Your task to perform on an android device: open chrome and create a bookmark for the current page Image 0: 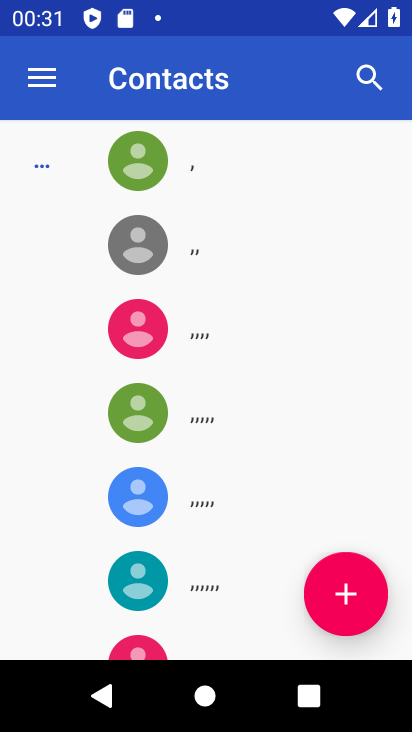
Step 0: press home button
Your task to perform on an android device: open chrome and create a bookmark for the current page Image 1: 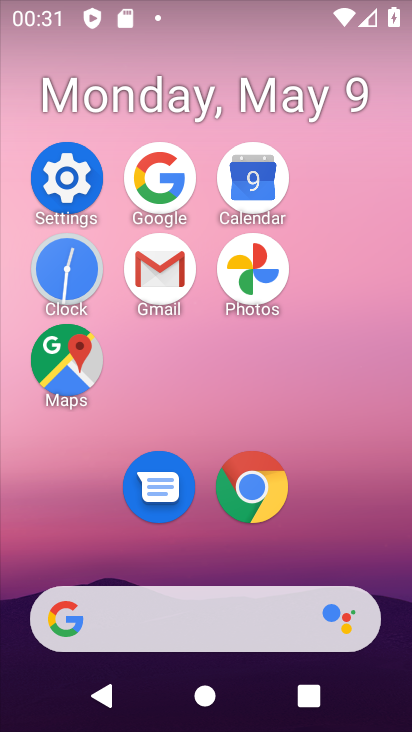
Step 1: click (249, 486)
Your task to perform on an android device: open chrome and create a bookmark for the current page Image 2: 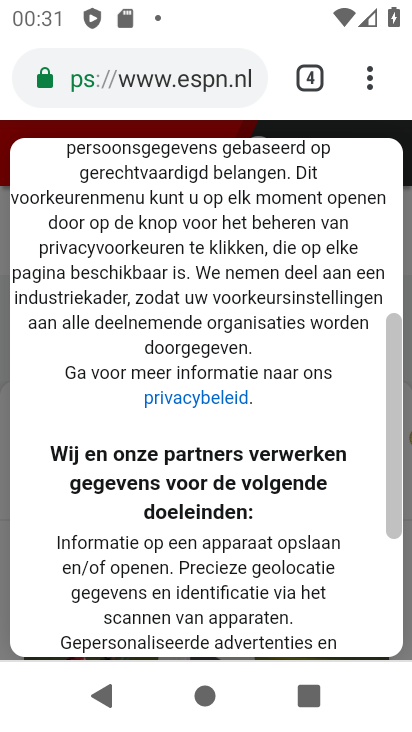
Step 2: click (310, 81)
Your task to perform on an android device: open chrome and create a bookmark for the current page Image 3: 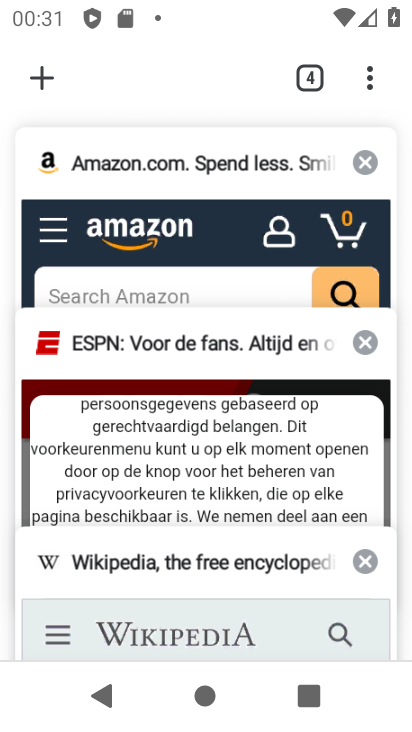
Step 3: click (36, 82)
Your task to perform on an android device: open chrome and create a bookmark for the current page Image 4: 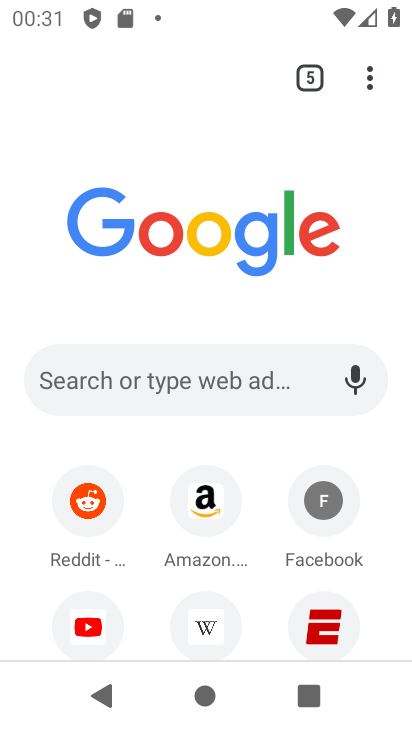
Step 4: click (317, 501)
Your task to perform on an android device: open chrome and create a bookmark for the current page Image 5: 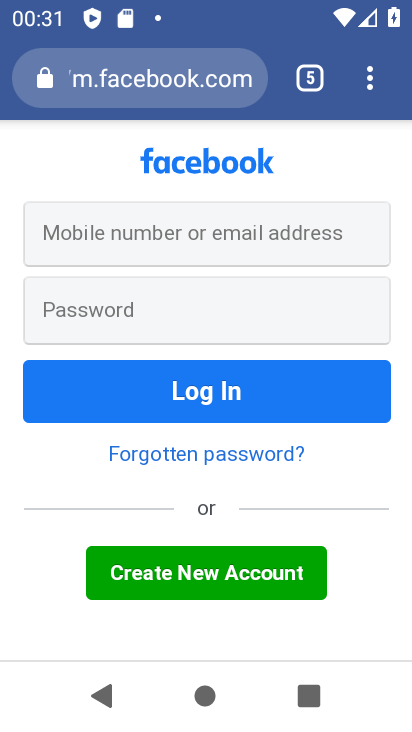
Step 5: click (314, 69)
Your task to perform on an android device: open chrome and create a bookmark for the current page Image 6: 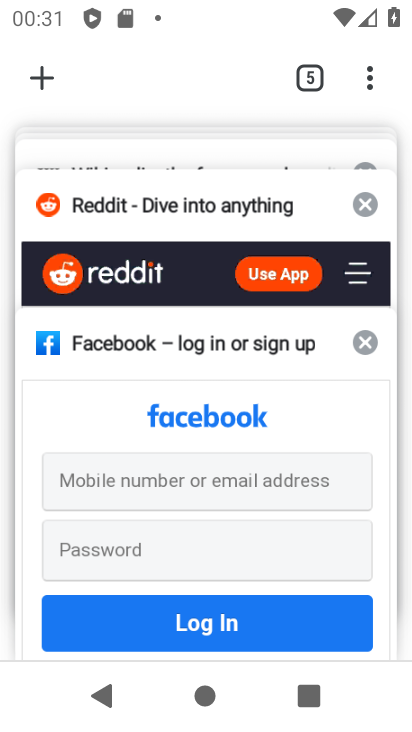
Step 6: click (146, 360)
Your task to perform on an android device: open chrome and create a bookmark for the current page Image 7: 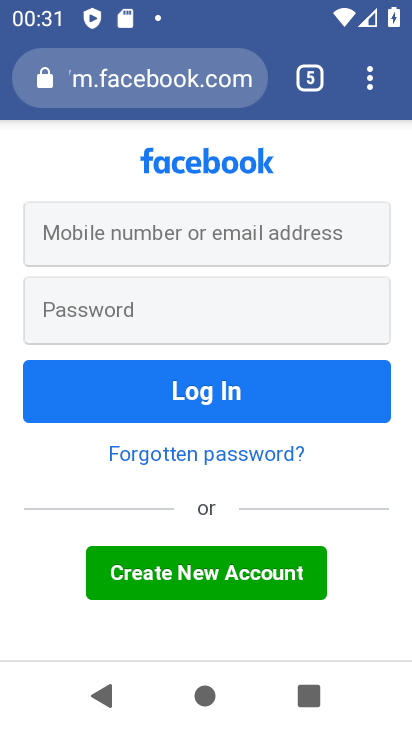
Step 7: click (371, 74)
Your task to perform on an android device: open chrome and create a bookmark for the current page Image 8: 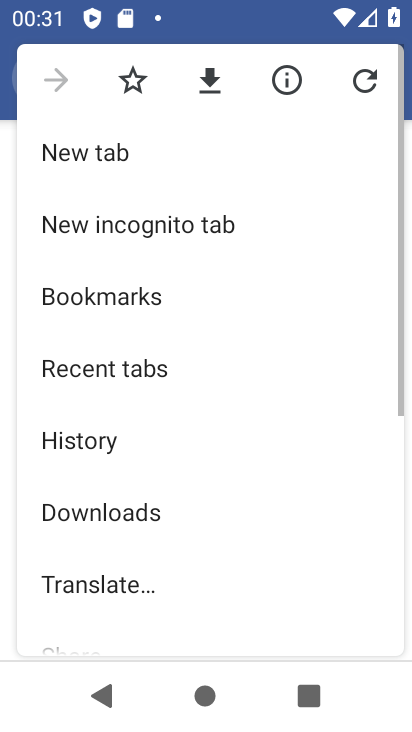
Step 8: click (141, 78)
Your task to perform on an android device: open chrome and create a bookmark for the current page Image 9: 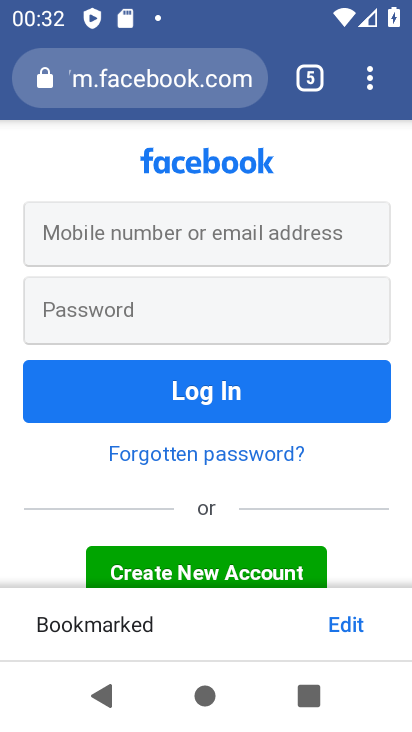
Step 9: task complete